Your task to perform on an android device: Open the calendar app, open the side menu, and click the "Day" option Image 0: 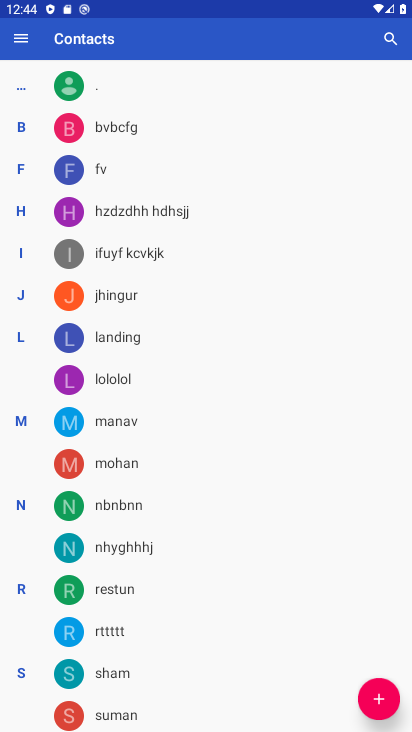
Step 0: press home button
Your task to perform on an android device: Open the calendar app, open the side menu, and click the "Day" option Image 1: 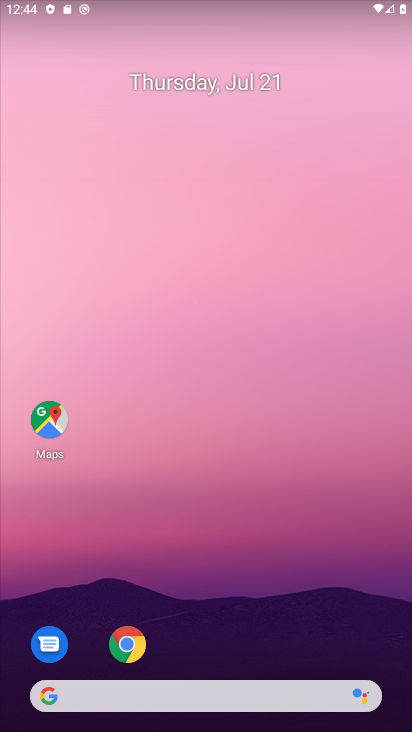
Step 1: drag from (280, 599) to (333, 19)
Your task to perform on an android device: Open the calendar app, open the side menu, and click the "Day" option Image 2: 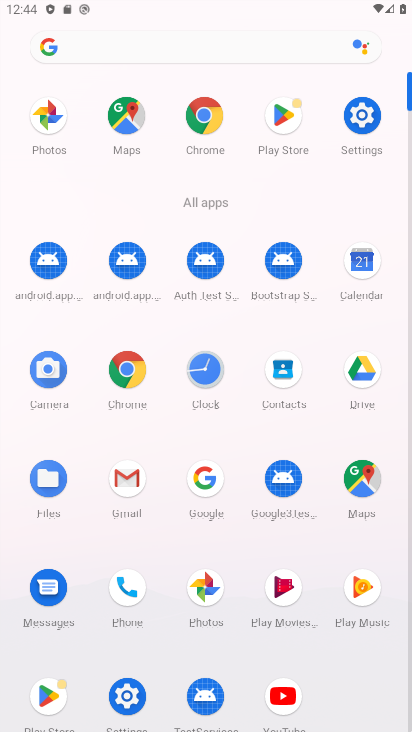
Step 2: click (357, 476)
Your task to perform on an android device: Open the calendar app, open the side menu, and click the "Day" option Image 3: 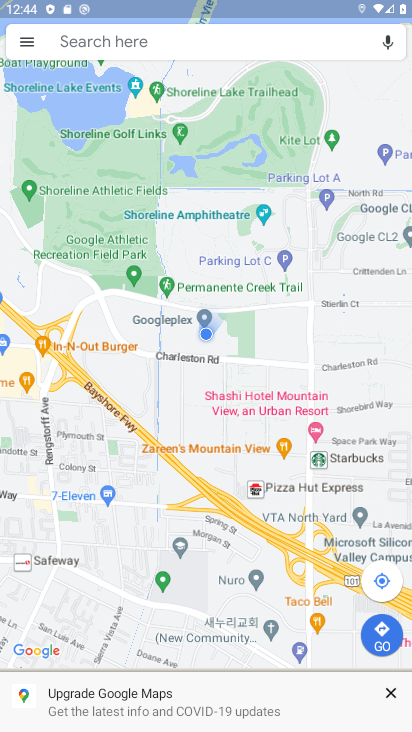
Step 3: click (23, 41)
Your task to perform on an android device: Open the calendar app, open the side menu, and click the "Day" option Image 4: 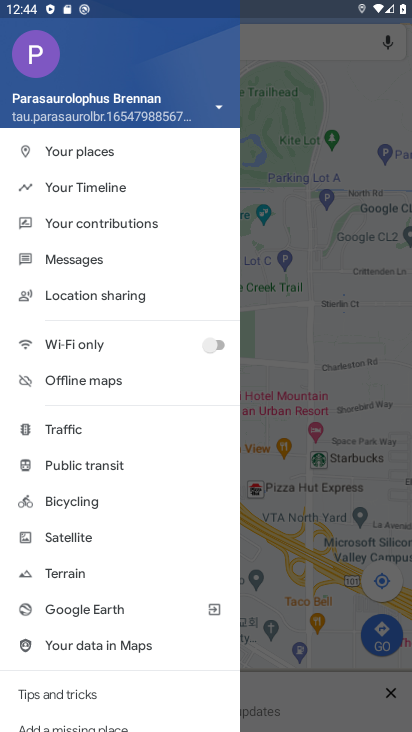
Step 4: drag from (141, 624) to (155, 328)
Your task to perform on an android device: Open the calendar app, open the side menu, and click the "Day" option Image 5: 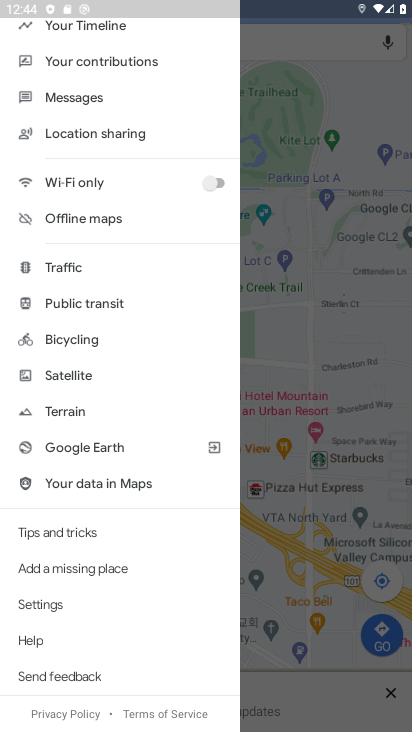
Step 5: press home button
Your task to perform on an android device: Open the calendar app, open the side menu, and click the "Day" option Image 6: 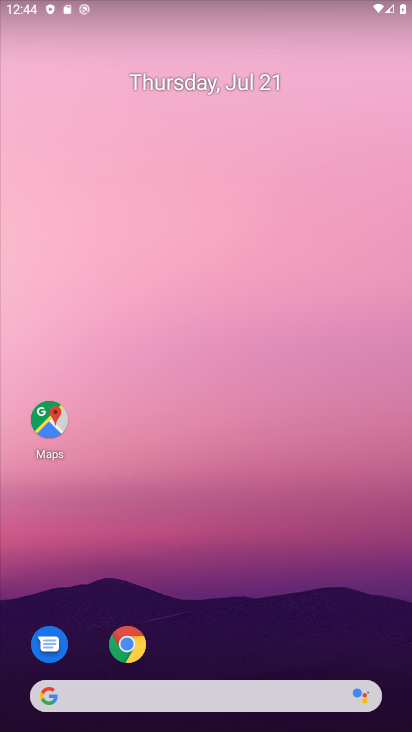
Step 6: drag from (313, 549) to (335, 4)
Your task to perform on an android device: Open the calendar app, open the side menu, and click the "Day" option Image 7: 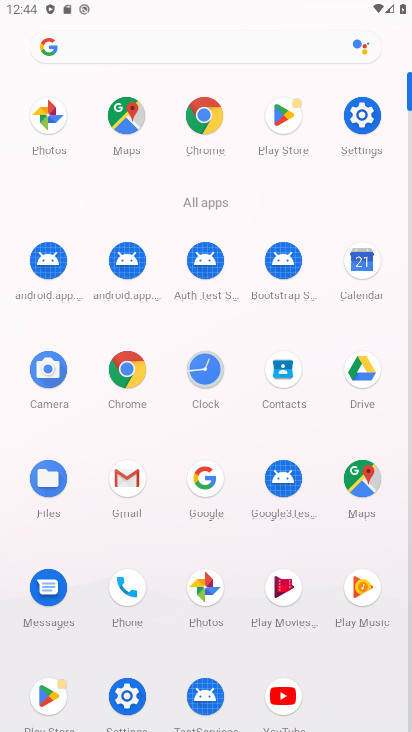
Step 7: click (356, 261)
Your task to perform on an android device: Open the calendar app, open the side menu, and click the "Day" option Image 8: 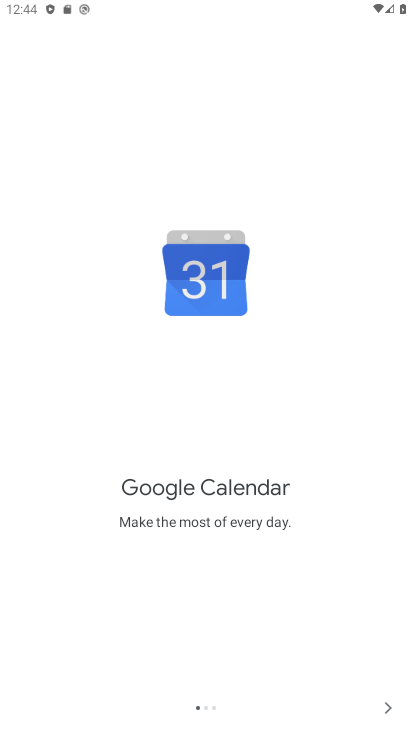
Step 8: click (386, 704)
Your task to perform on an android device: Open the calendar app, open the side menu, and click the "Day" option Image 9: 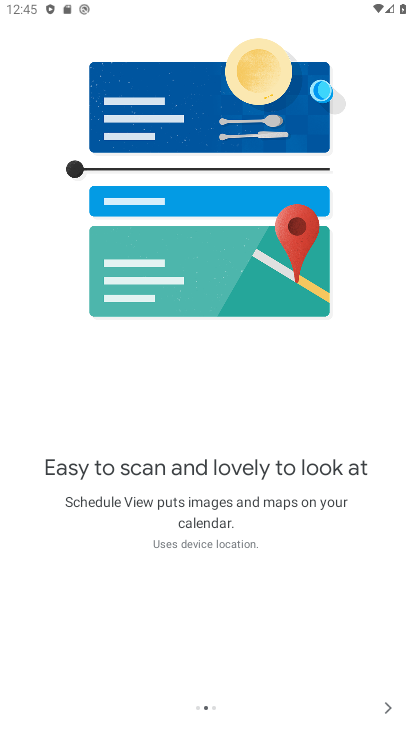
Step 9: click (387, 702)
Your task to perform on an android device: Open the calendar app, open the side menu, and click the "Day" option Image 10: 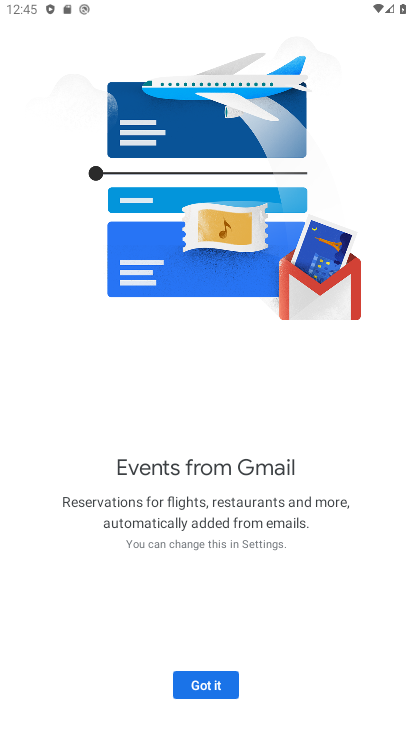
Step 10: click (196, 681)
Your task to perform on an android device: Open the calendar app, open the side menu, and click the "Day" option Image 11: 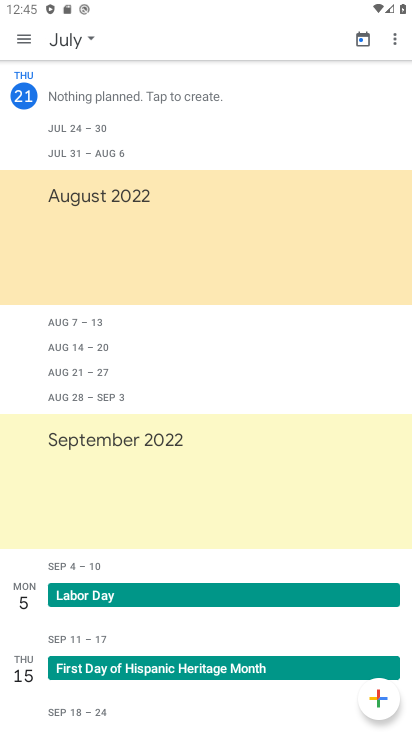
Step 11: click (14, 39)
Your task to perform on an android device: Open the calendar app, open the side menu, and click the "Day" option Image 12: 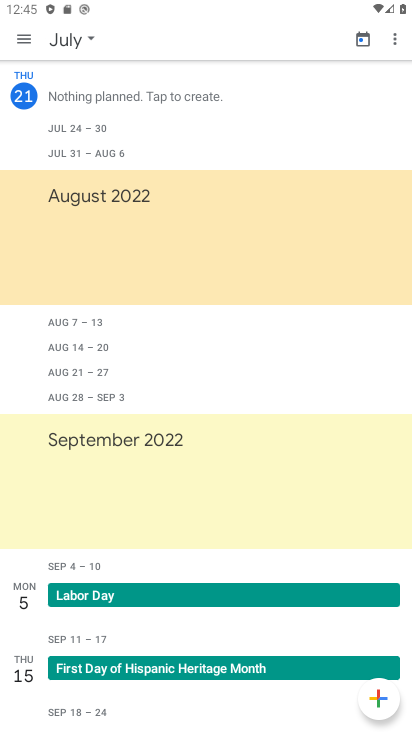
Step 12: click (31, 38)
Your task to perform on an android device: Open the calendar app, open the side menu, and click the "Day" option Image 13: 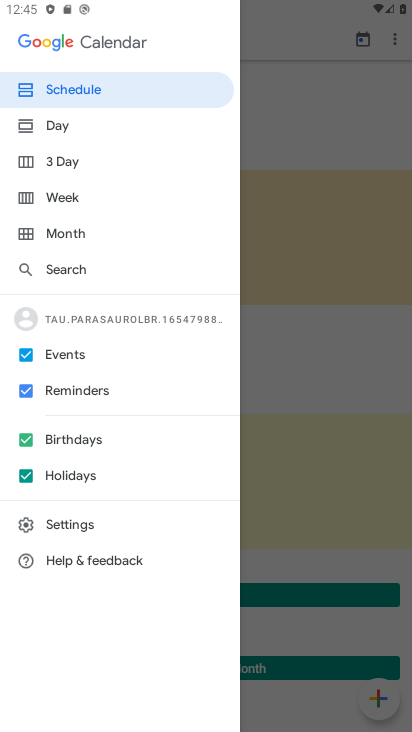
Step 13: click (56, 126)
Your task to perform on an android device: Open the calendar app, open the side menu, and click the "Day" option Image 14: 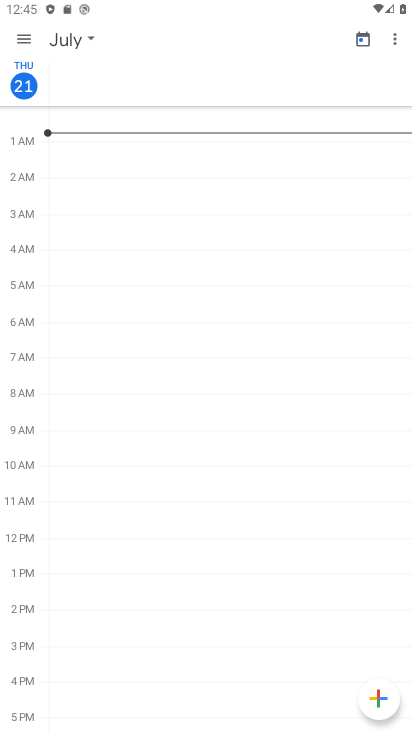
Step 14: task complete